Your task to perform on an android device: move a message to another label in the gmail app Image 0: 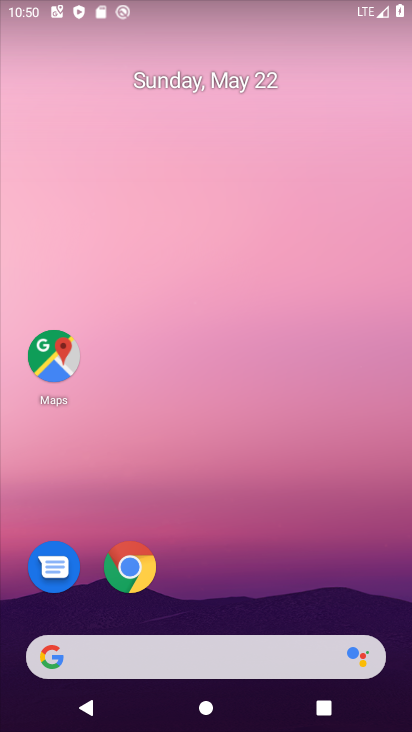
Step 0: drag from (260, 558) to (267, 29)
Your task to perform on an android device: move a message to another label in the gmail app Image 1: 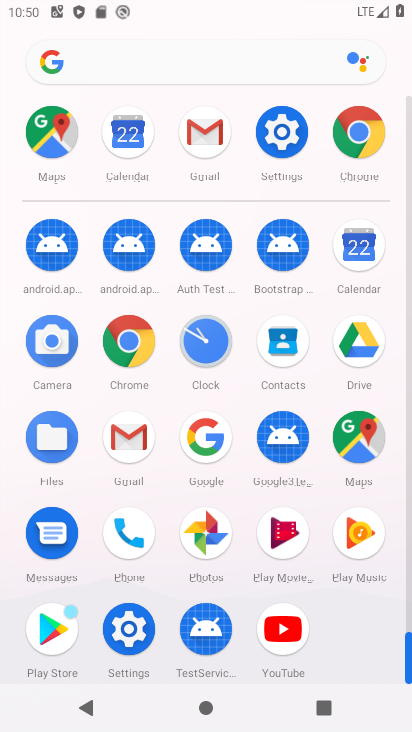
Step 1: click (126, 436)
Your task to perform on an android device: move a message to another label in the gmail app Image 2: 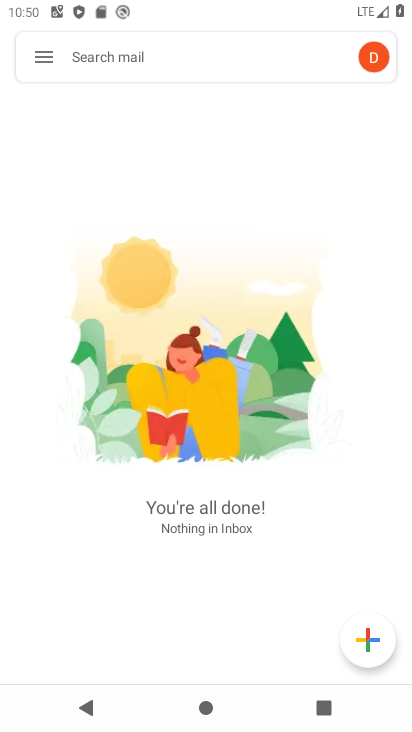
Step 2: click (49, 58)
Your task to perform on an android device: move a message to another label in the gmail app Image 3: 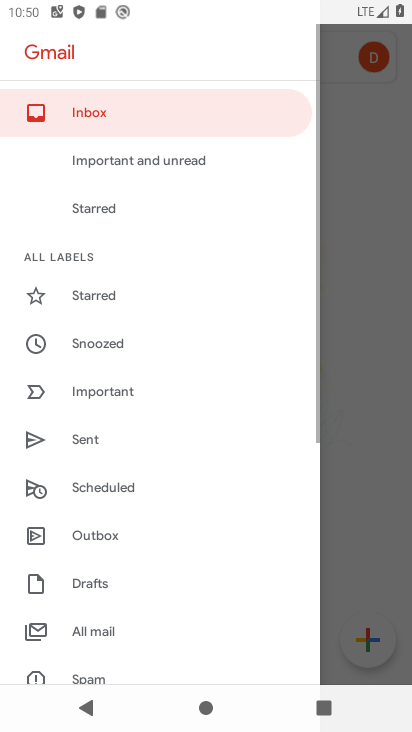
Step 3: drag from (180, 481) to (187, 155)
Your task to perform on an android device: move a message to another label in the gmail app Image 4: 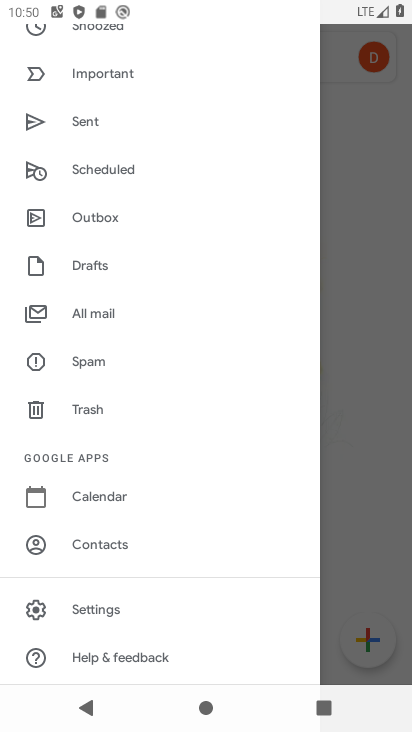
Step 4: click (117, 309)
Your task to perform on an android device: move a message to another label in the gmail app Image 5: 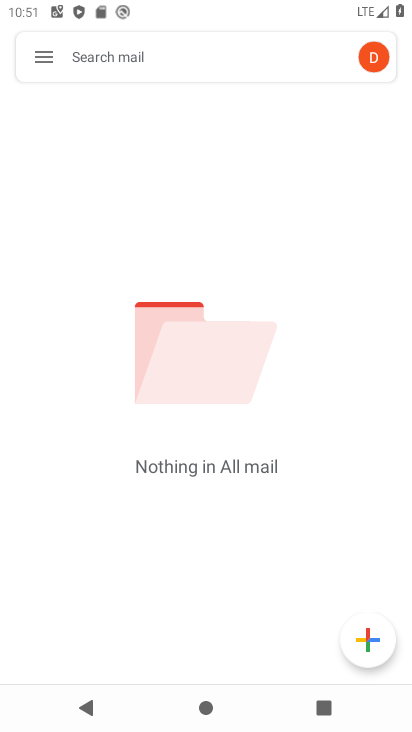
Step 5: click (49, 52)
Your task to perform on an android device: move a message to another label in the gmail app Image 6: 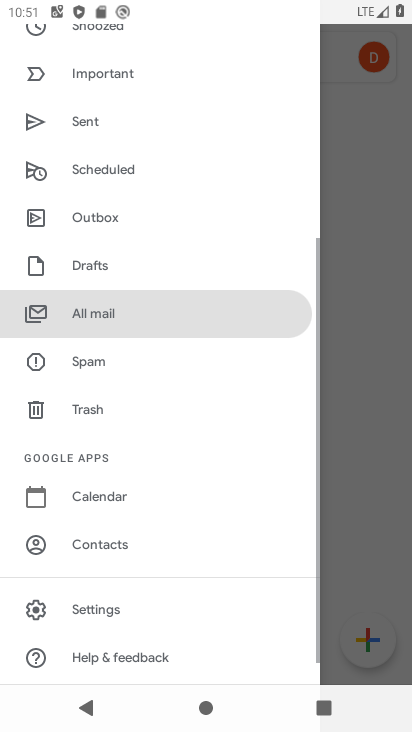
Step 6: drag from (227, 152) to (240, 528)
Your task to perform on an android device: move a message to another label in the gmail app Image 7: 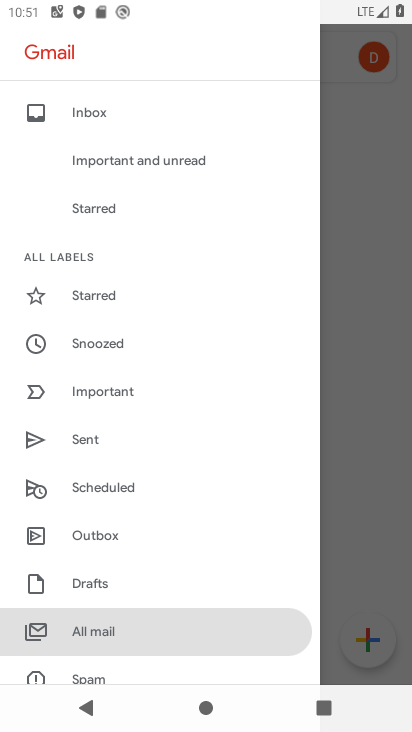
Step 7: click (100, 115)
Your task to perform on an android device: move a message to another label in the gmail app Image 8: 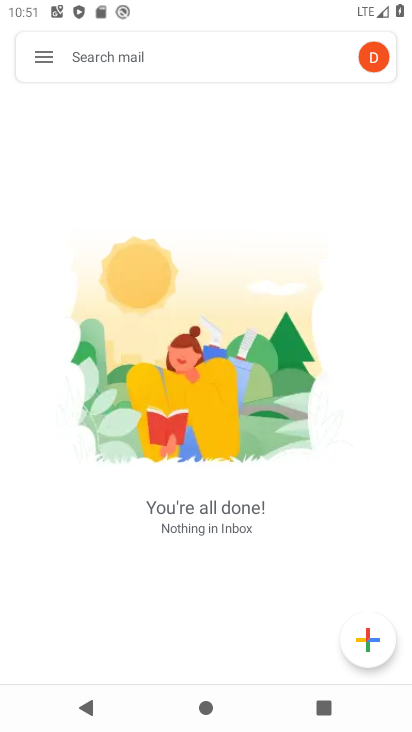
Step 8: task complete